Your task to perform on an android device: toggle airplane mode Image 0: 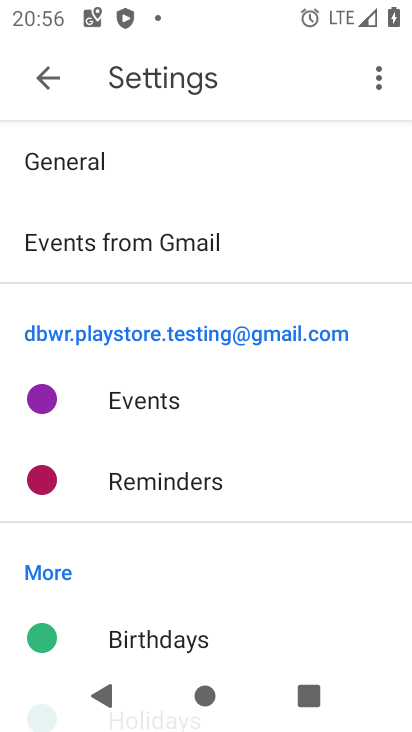
Step 0: press home button
Your task to perform on an android device: toggle airplane mode Image 1: 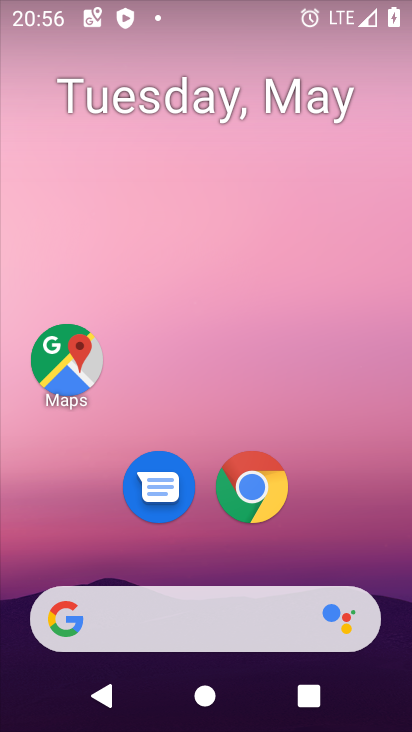
Step 1: drag from (354, 534) to (224, 19)
Your task to perform on an android device: toggle airplane mode Image 2: 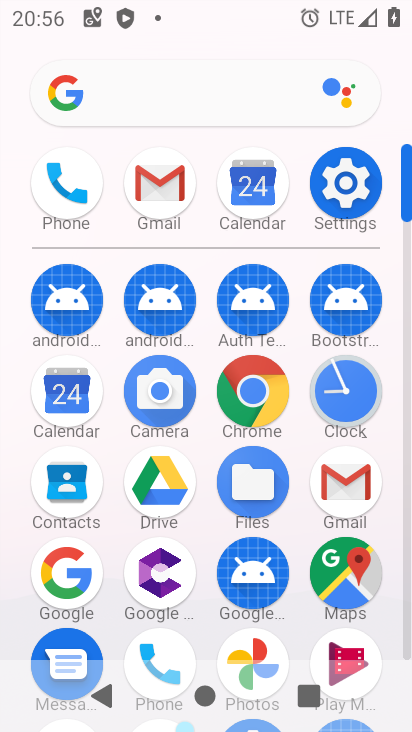
Step 2: click (342, 180)
Your task to perform on an android device: toggle airplane mode Image 3: 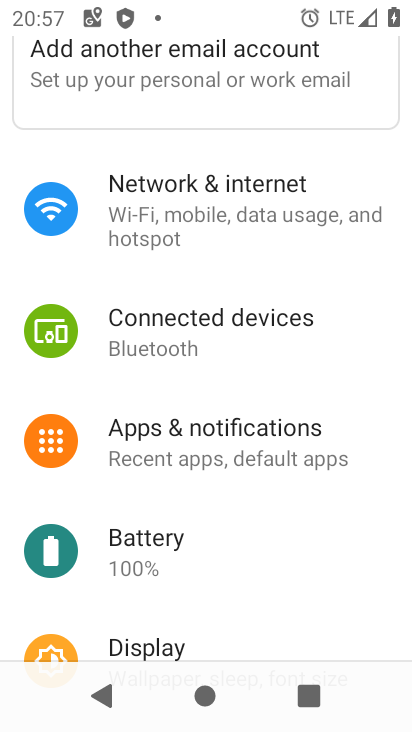
Step 3: click (192, 191)
Your task to perform on an android device: toggle airplane mode Image 4: 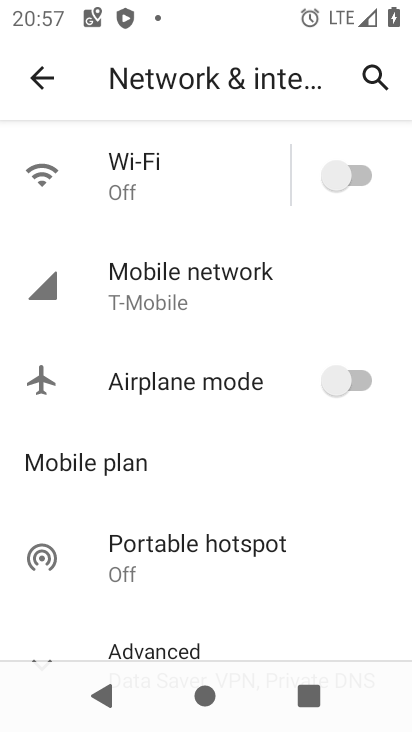
Step 4: click (338, 380)
Your task to perform on an android device: toggle airplane mode Image 5: 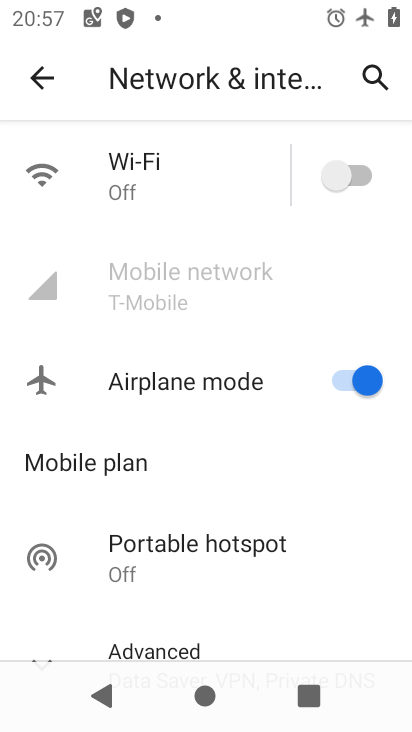
Step 5: task complete